Your task to perform on an android device: Add "acer predator" to the cart on amazon, then select checkout. Image 0: 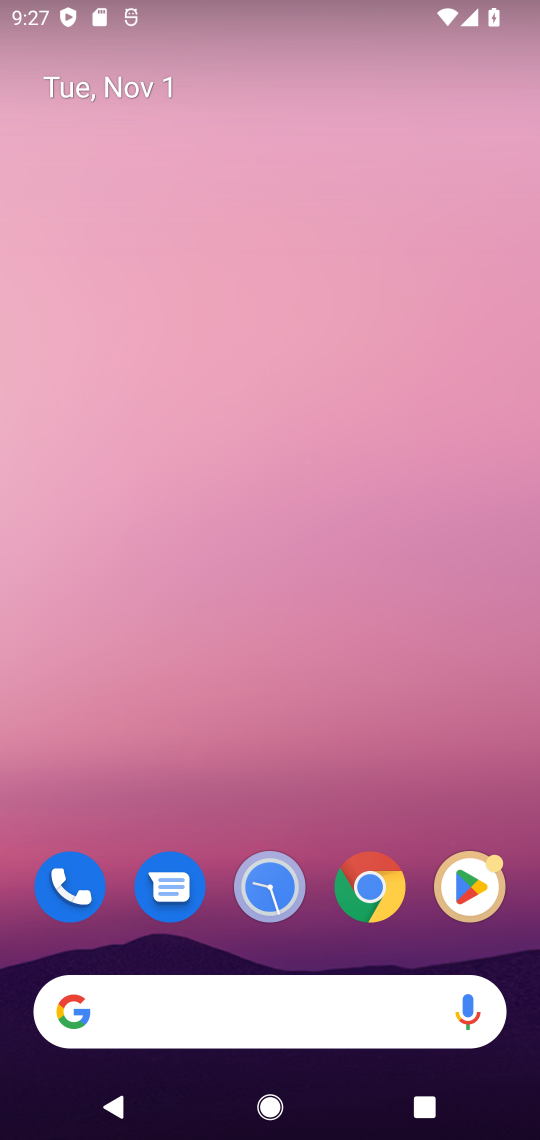
Step 0: click (375, 888)
Your task to perform on an android device: Add "acer predator" to the cart on amazon, then select checkout. Image 1: 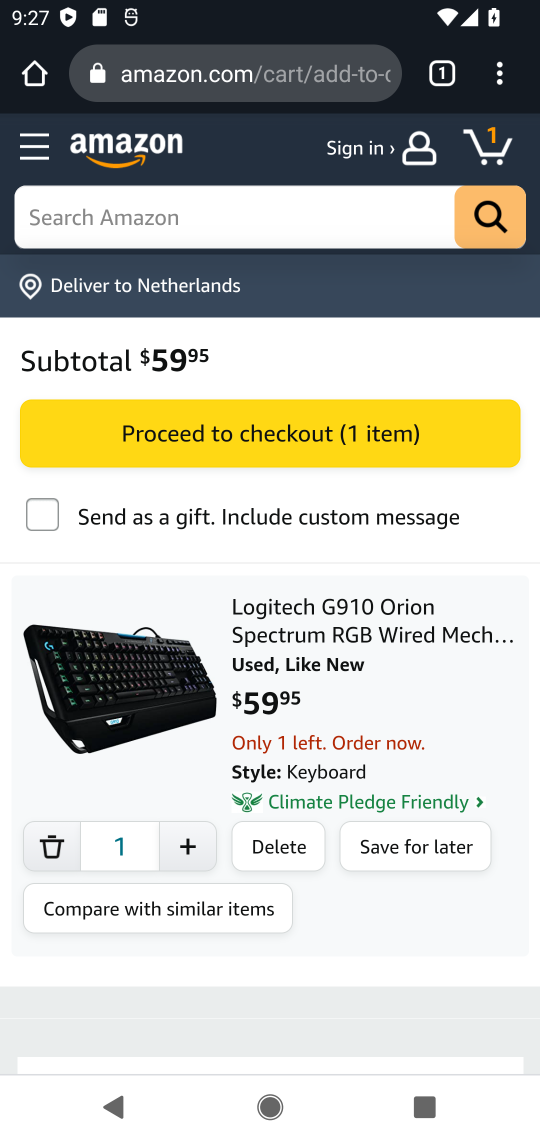
Step 1: click (274, 221)
Your task to perform on an android device: Add "acer predator" to the cart on amazon, then select checkout. Image 2: 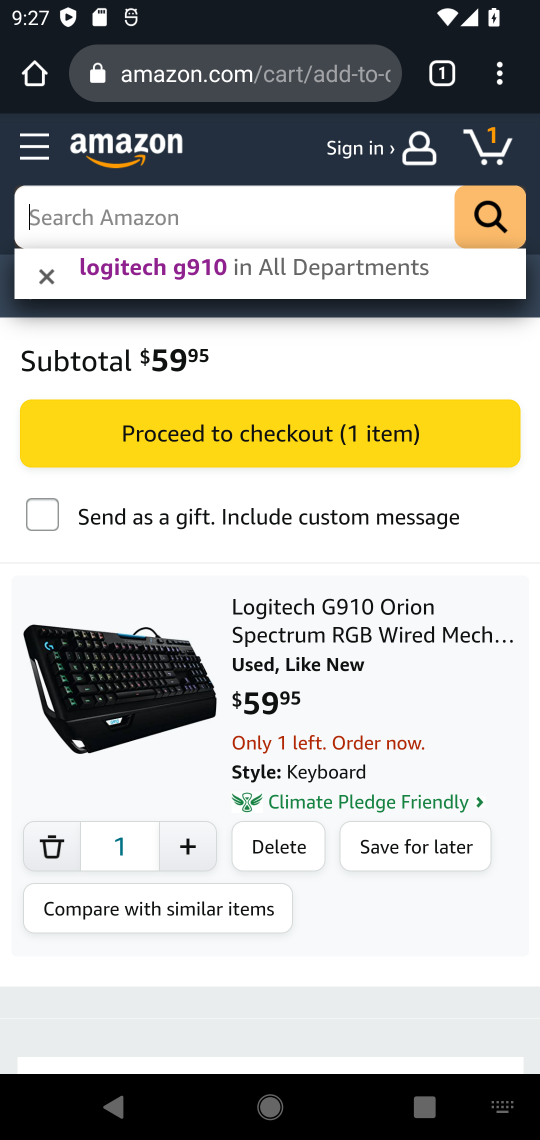
Step 2: press enter
Your task to perform on an android device: Add "acer predator" to the cart on amazon, then select checkout. Image 3: 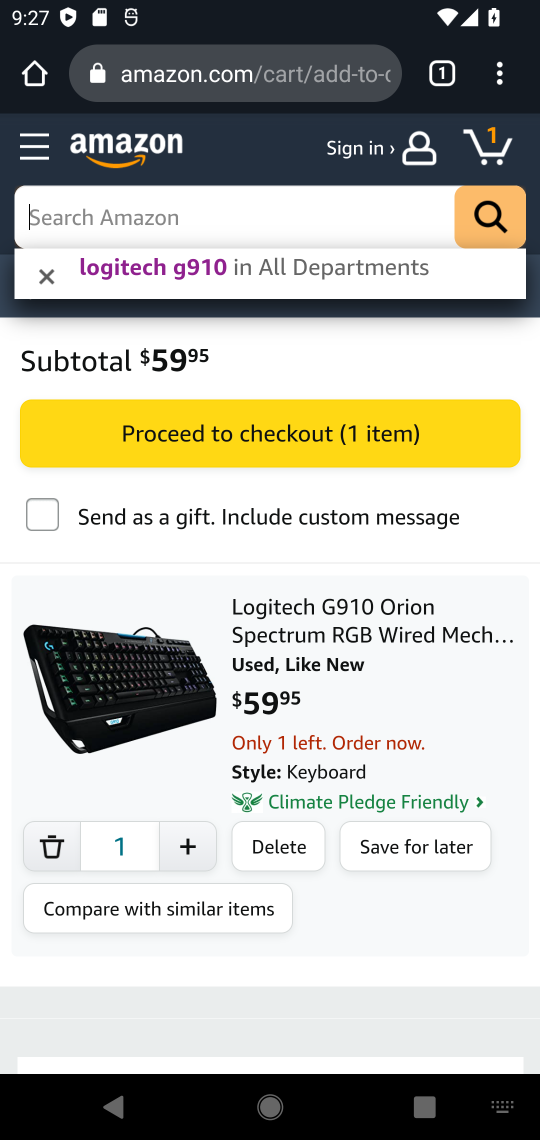
Step 3: type "acer predator"
Your task to perform on an android device: Add "acer predator" to the cart on amazon, then select checkout. Image 4: 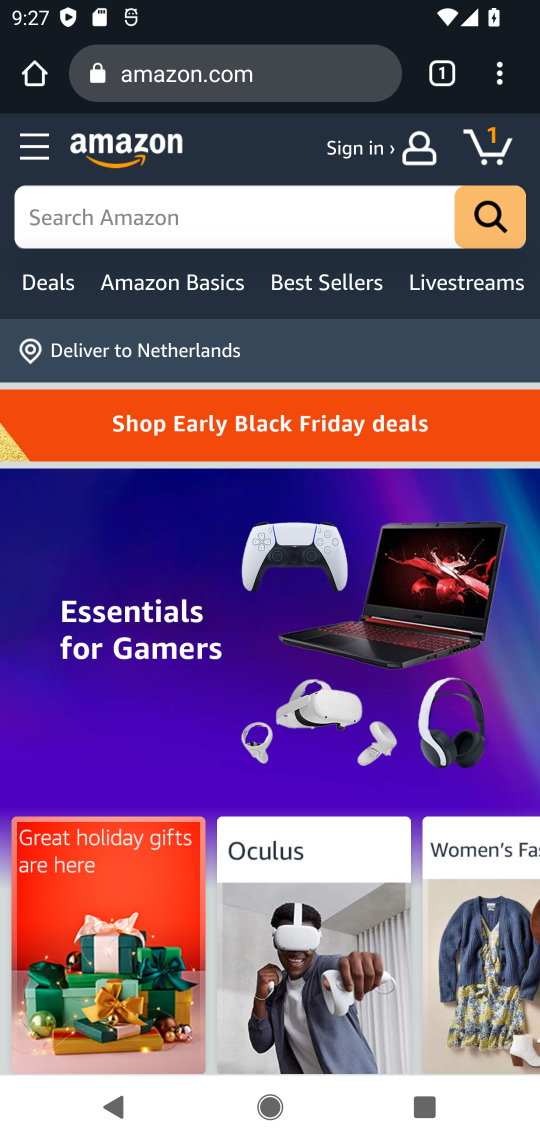
Step 4: click (287, 216)
Your task to perform on an android device: Add "acer predator" to the cart on amazon, then select checkout. Image 5: 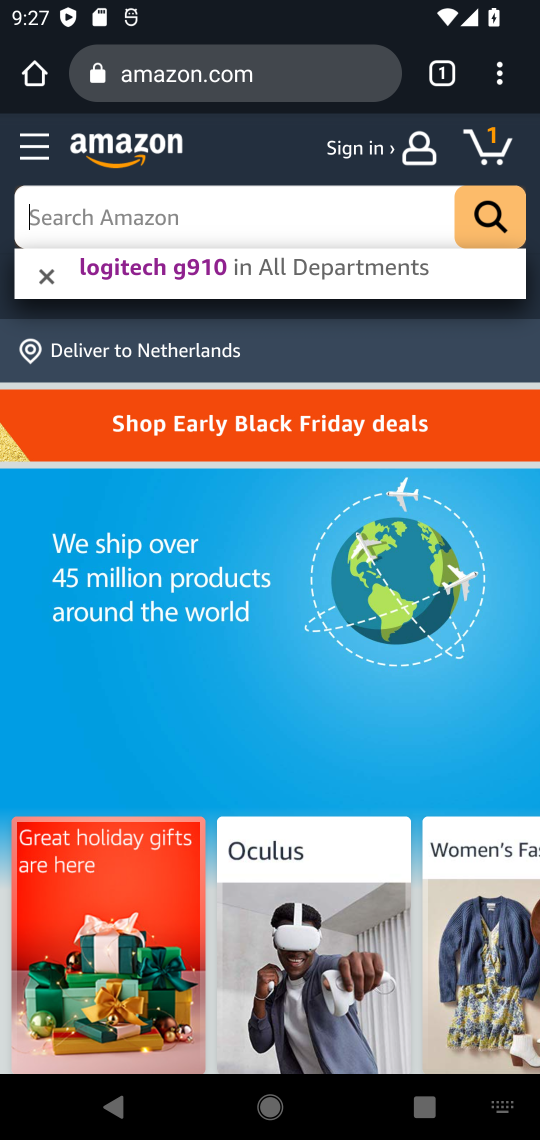
Step 5: press enter
Your task to perform on an android device: Add "acer predator" to the cart on amazon, then select checkout. Image 6: 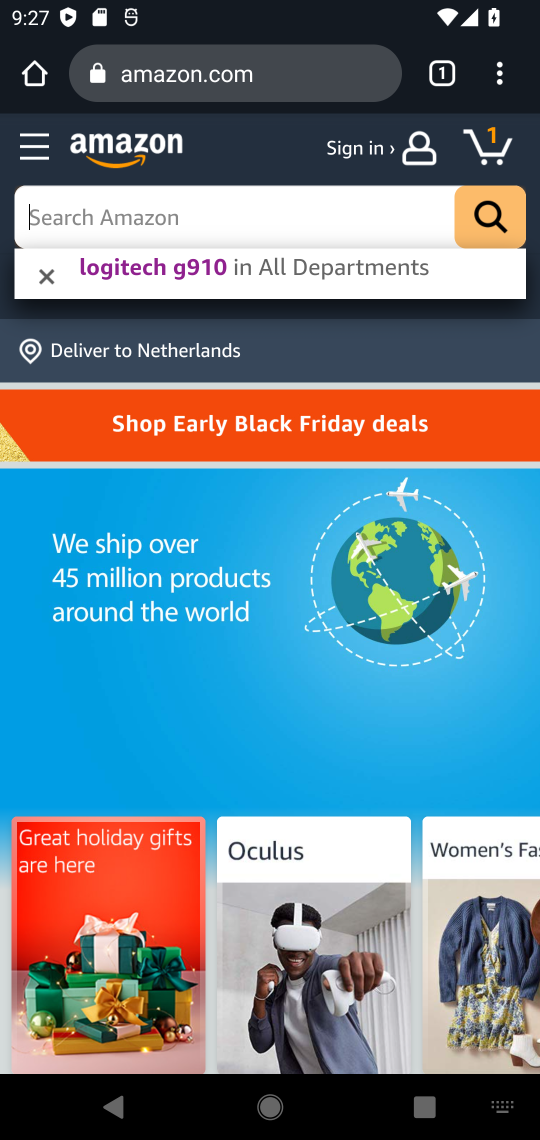
Step 6: type "acer predator"
Your task to perform on an android device: Add "acer predator" to the cart on amazon, then select checkout. Image 7: 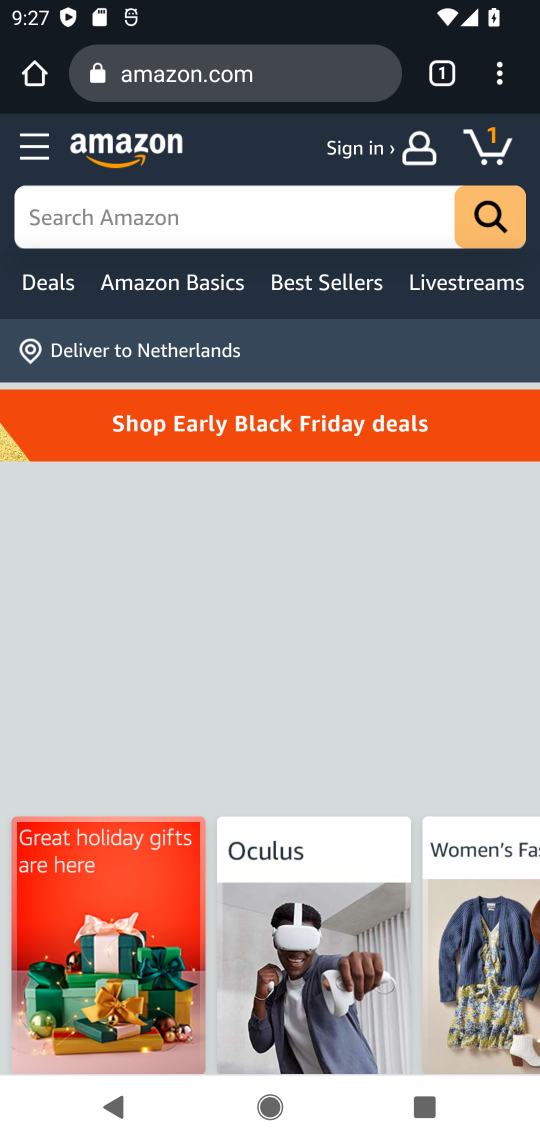
Step 7: drag from (333, 694) to (322, 222)
Your task to perform on an android device: Add "acer predator" to the cart on amazon, then select checkout. Image 8: 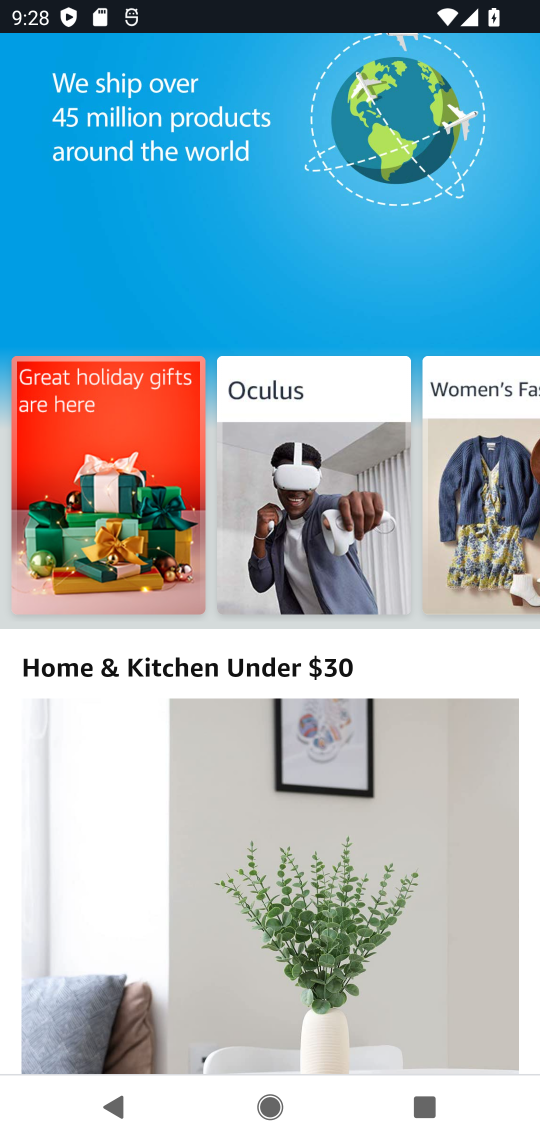
Step 8: drag from (315, 339) to (313, 888)
Your task to perform on an android device: Add "acer predator" to the cart on amazon, then select checkout. Image 9: 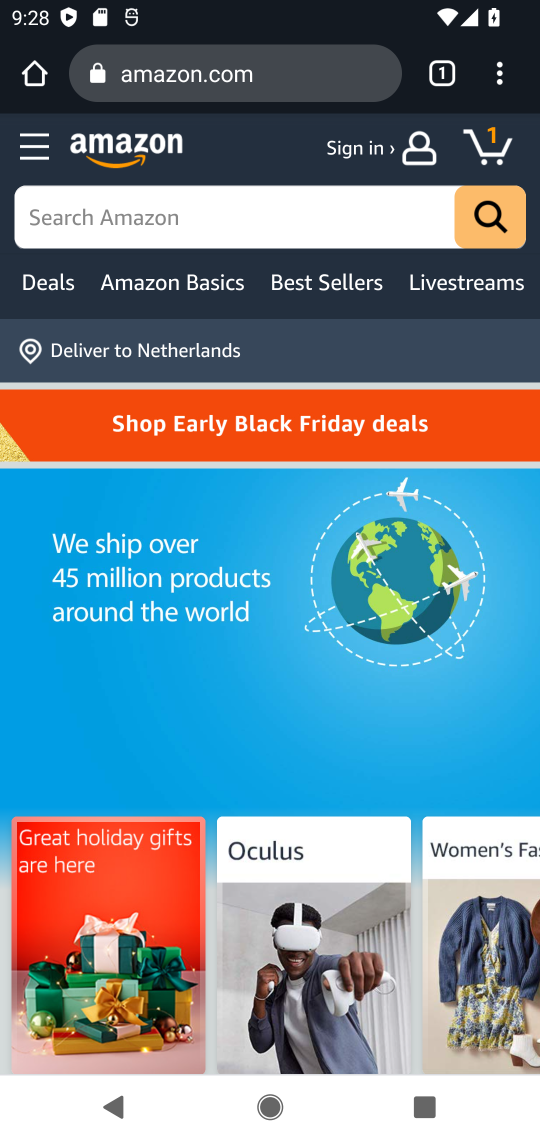
Step 9: click (177, 225)
Your task to perform on an android device: Add "acer predator" to the cart on amazon, then select checkout. Image 10: 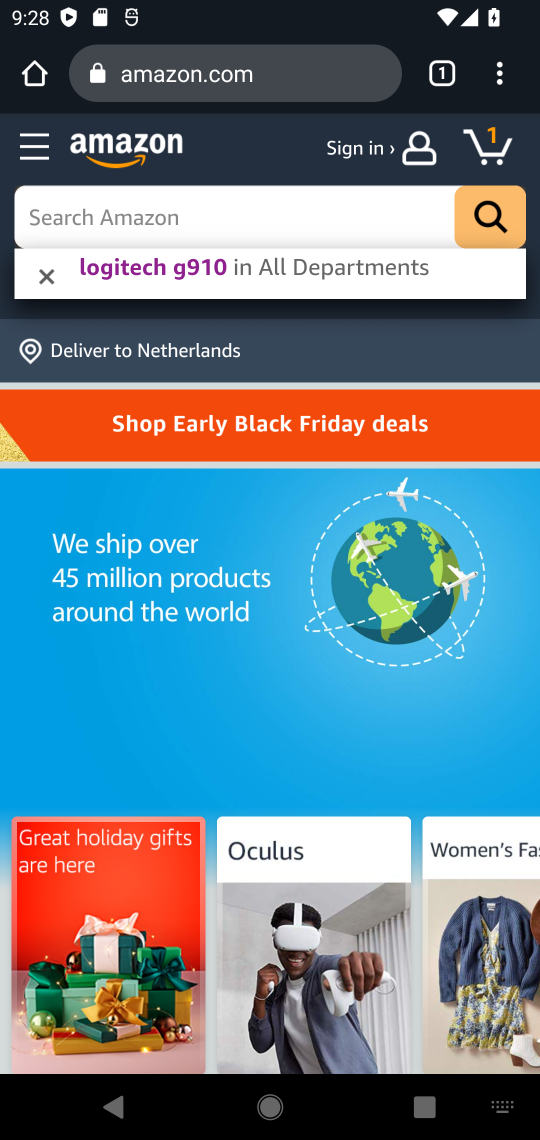
Step 10: type "acer predator"
Your task to perform on an android device: Add "acer predator" to the cart on amazon, then select checkout. Image 11: 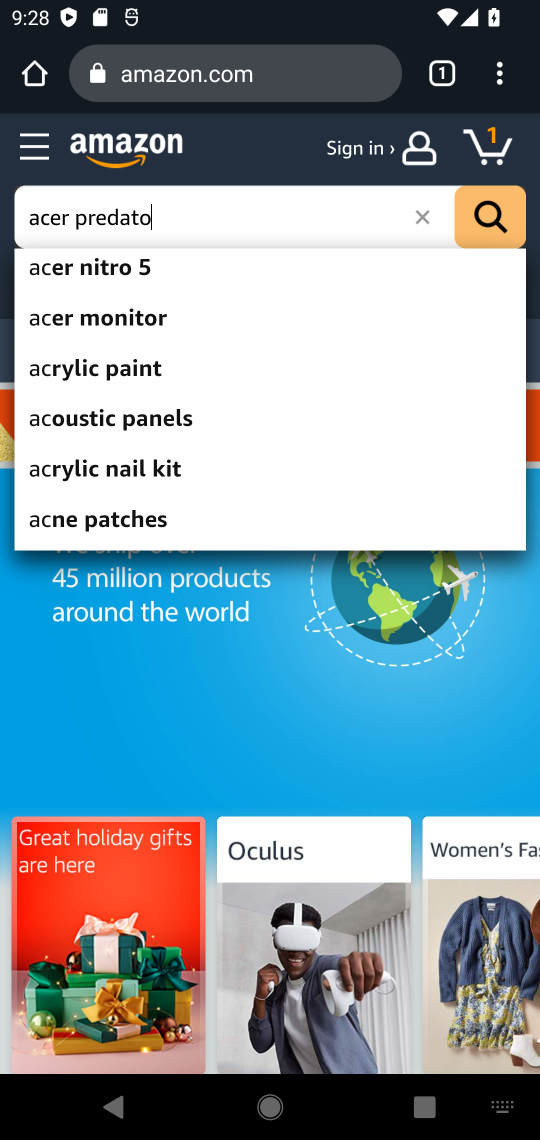
Step 11: press enter
Your task to perform on an android device: Add "acer predator" to the cart on amazon, then select checkout. Image 12: 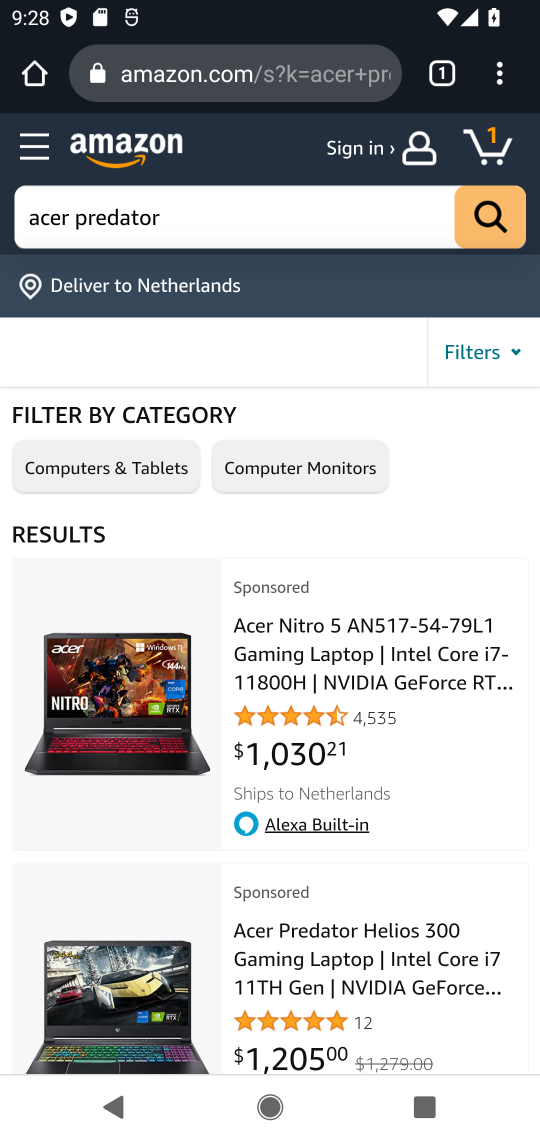
Step 12: drag from (360, 958) to (401, 682)
Your task to perform on an android device: Add "acer predator" to the cart on amazon, then select checkout. Image 13: 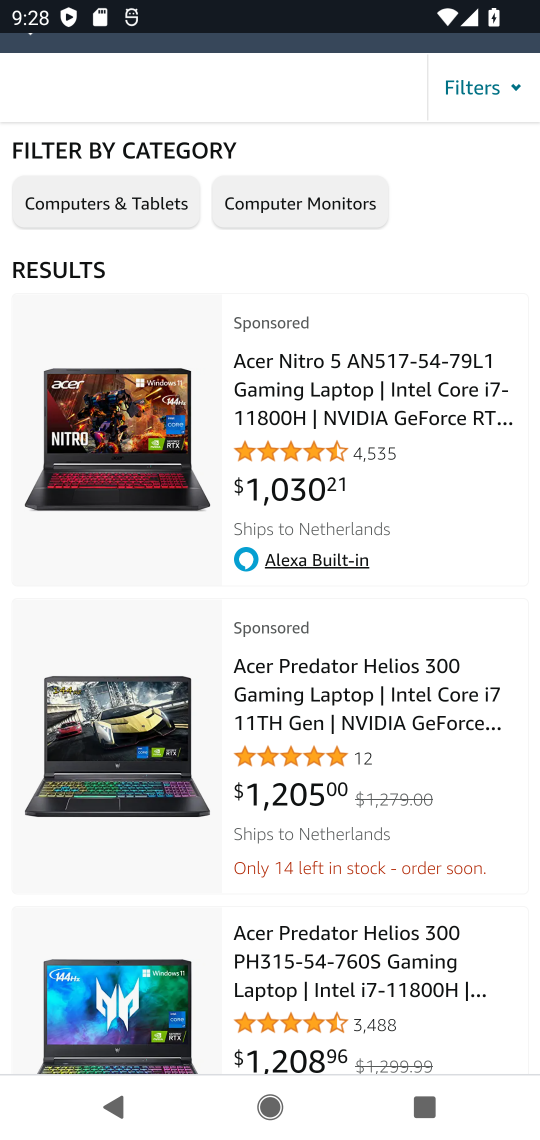
Step 13: click (90, 707)
Your task to perform on an android device: Add "acer predator" to the cart on amazon, then select checkout. Image 14: 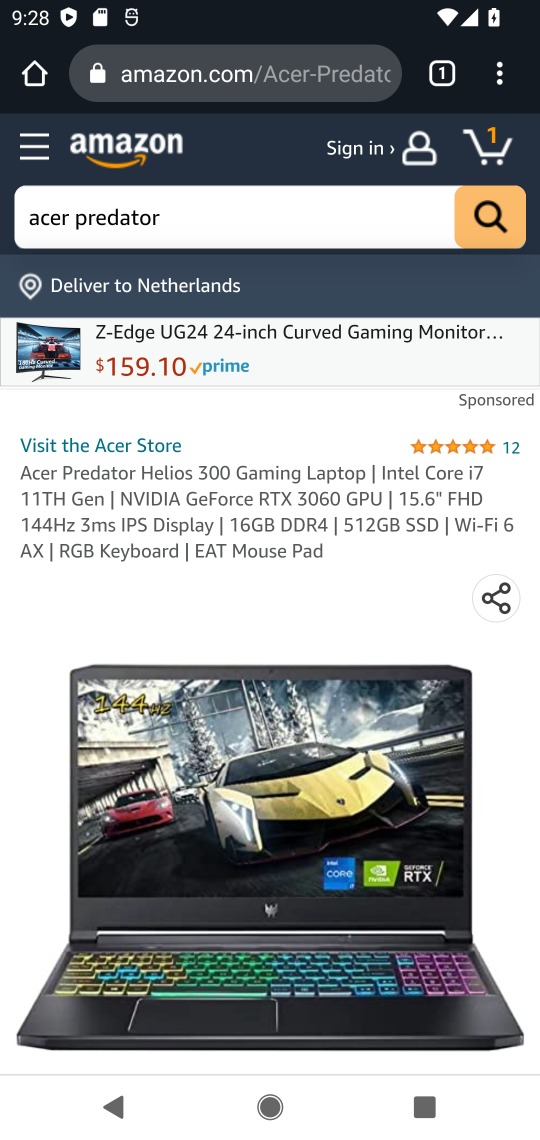
Step 14: drag from (421, 900) to (433, 401)
Your task to perform on an android device: Add "acer predator" to the cart on amazon, then select checkout. Image 15: 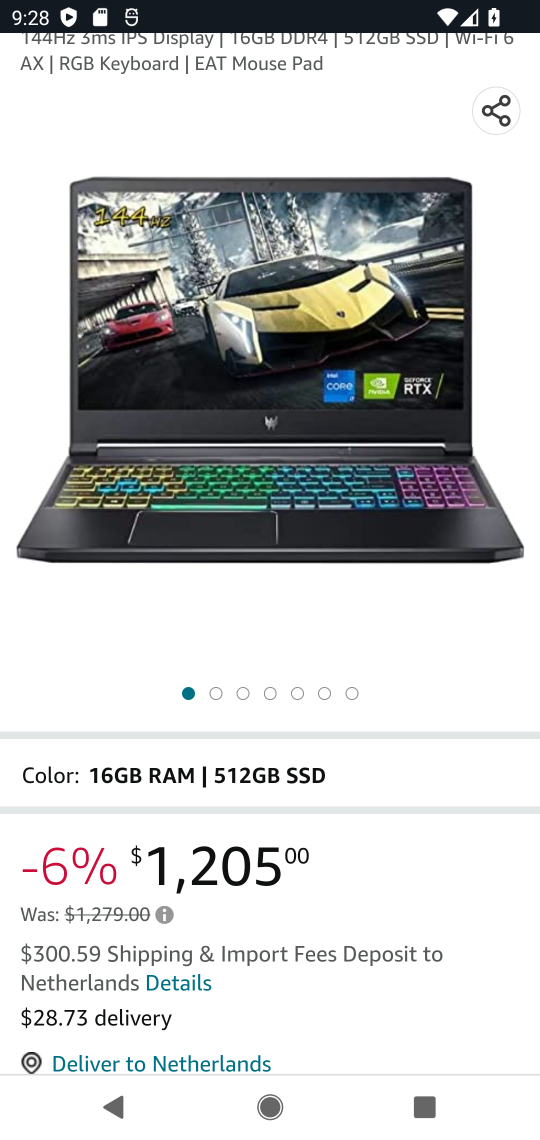
Step 15: drag from (368, 871) to (379, 381)
Your task to perform on an android device: Add "acer predator" to the cart on amazon, then select checkout. Image 16: 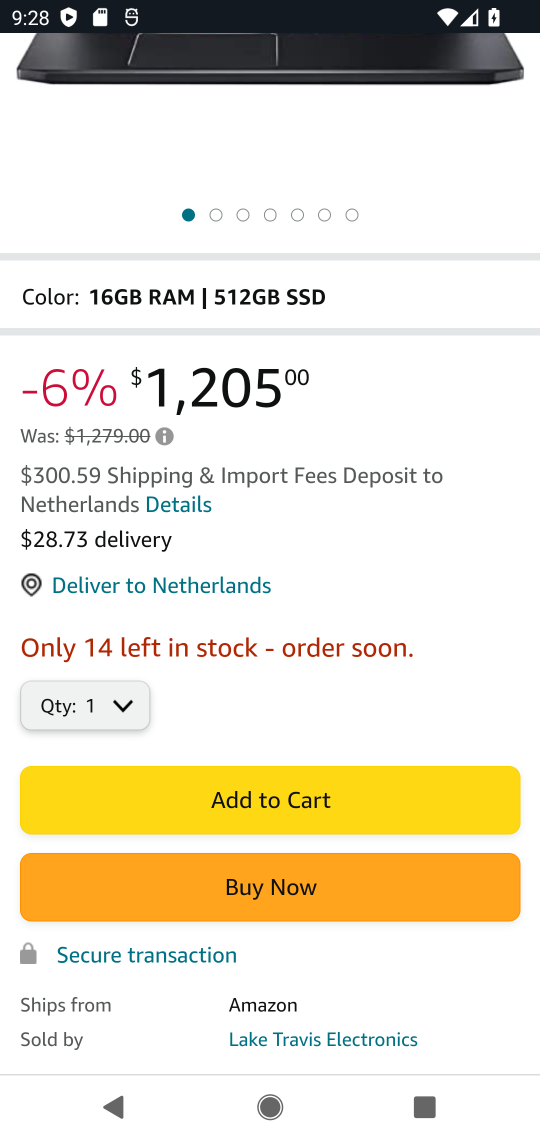
Step 16: click (385, 794)
Your task to perform on an android device: Add "acer predator" to the cart on amazon, then select checkout. Image 17: 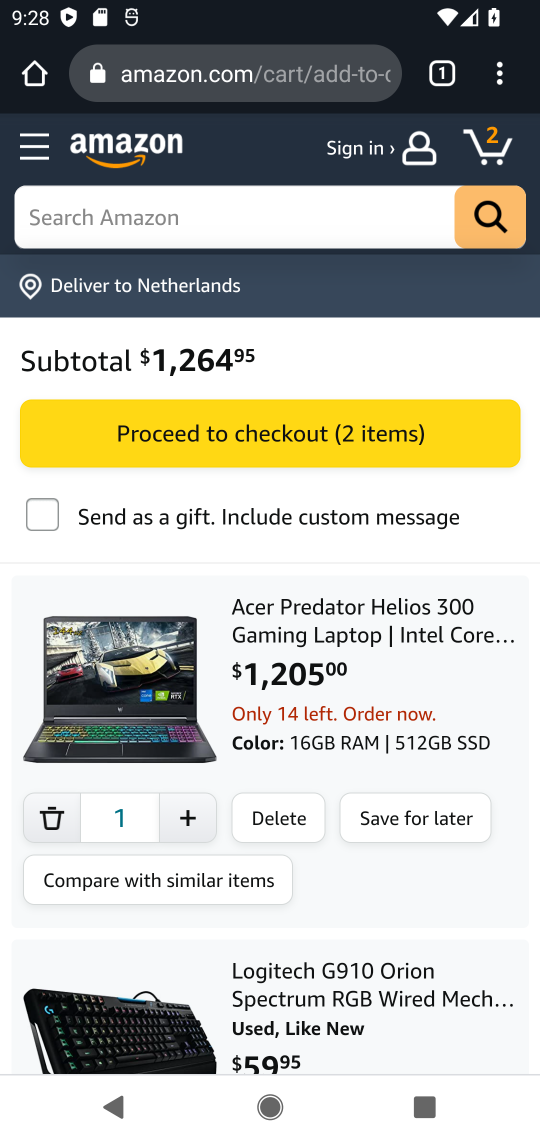
Step 17: click (223, 434)
Your task to perform on an android device: Add "acer predator" to the cart on amazon, then select checkout. Image 18: 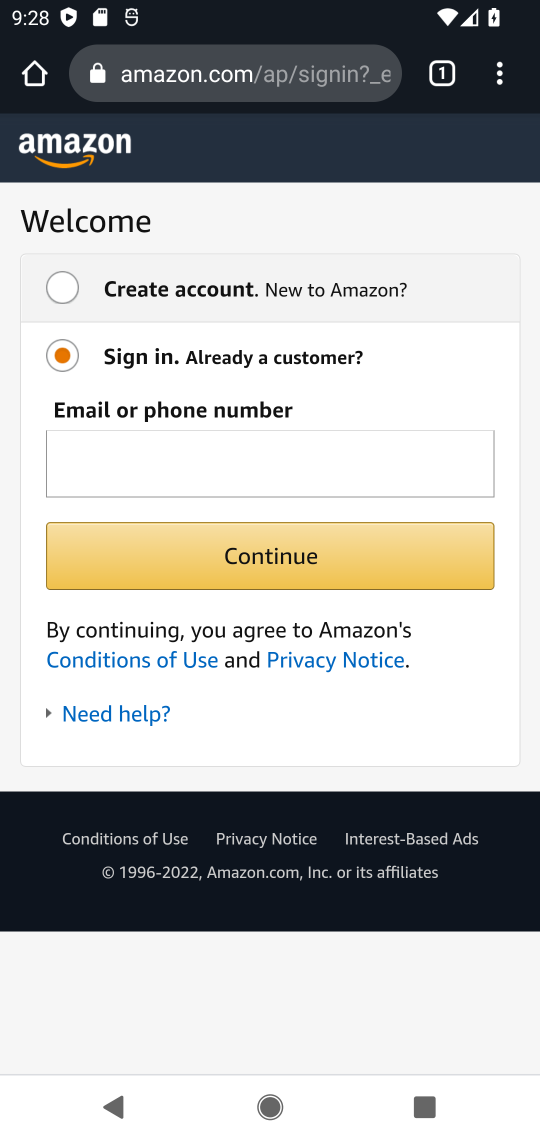
Step 18: task complete